Your task to perform on an android device: open app "Adobe Acrobat Reader: Edit PDF" (install if not already installed), go to login, and select forgot password Image 0: 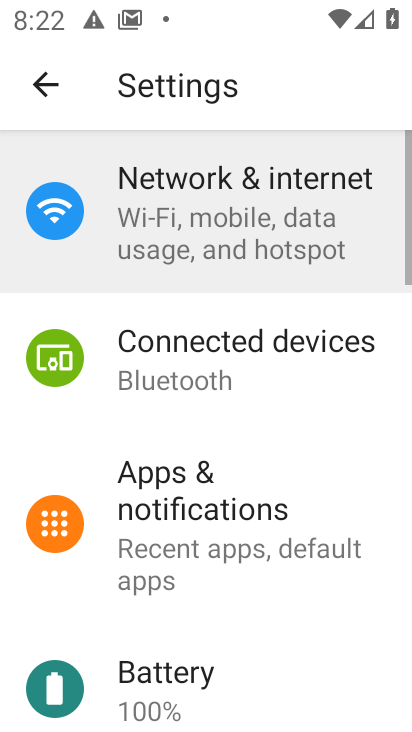
Step 0: press home button
Your task to perform on an android device: open app "Adobe Acrobat Reader: Edit PDF" (install if not already installed), go to login, and select forgot password Image 1: 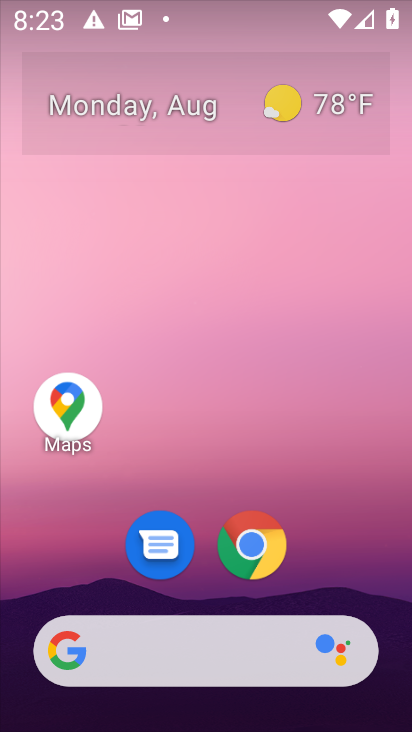
Step 1: drag from (329, 569) to (384, 167)
Your task to perform on an android device: open app "Adobe Acrobat Reader: Edit PDF" (install if not already installed), go to login, and select forgot password Image 2: 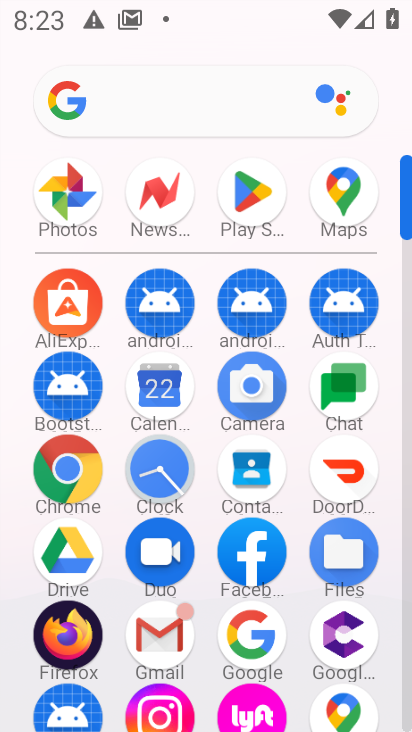
Step 2: click (253, 192)
Your task to perform on an android device: open app "Adobe Acrobat Reader: Edit PDF" (install if not already installed), go to login, and select forgot password Image 3: 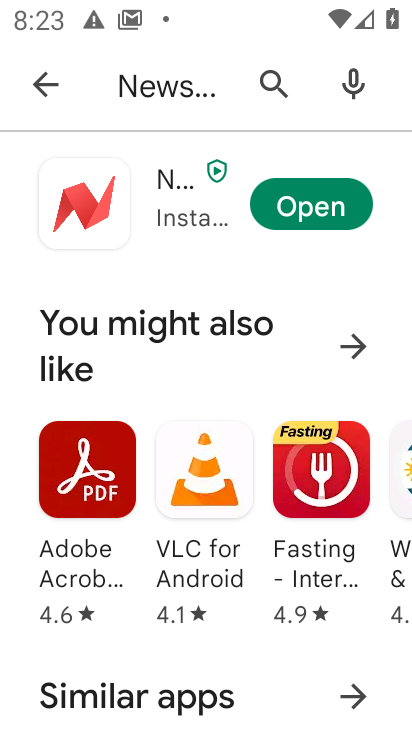
Step 3: press back button
Your task to perform on an android device: open app "Adobe Acrobat Reader: Edit PDF" (install if not already installed), go to login, and select forgot password Image 4: 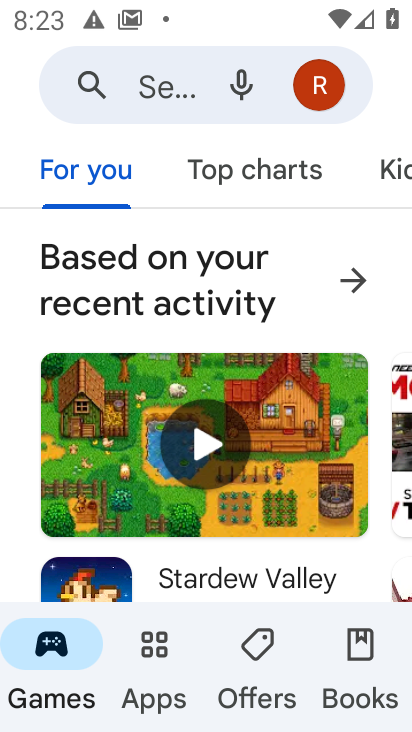
Step 4: click (123, 97)
Your task to perform on an android device: open app "Adobe Acrobat Reader: Edit PDF" (install if not already installed), go to login, and select forgot password Image 5: 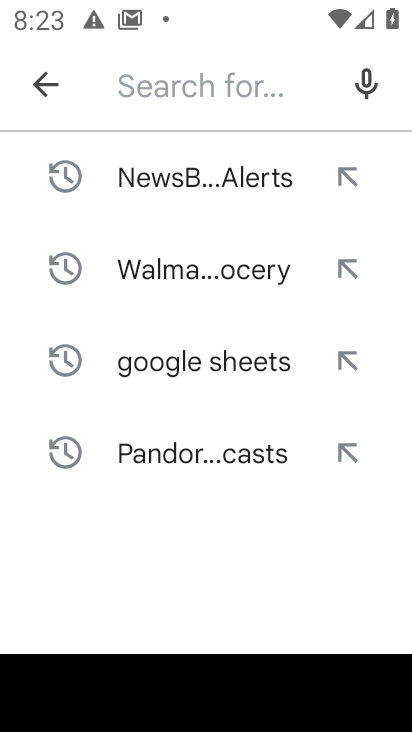
Step 5: type "Adobe Acrobat Reader: Edit PDF"
Your task to perform on an android device: open app "Adobe Acrobat Reader: Edit PDF" (install if not already installed), go to login, and select forgot password Image 6: 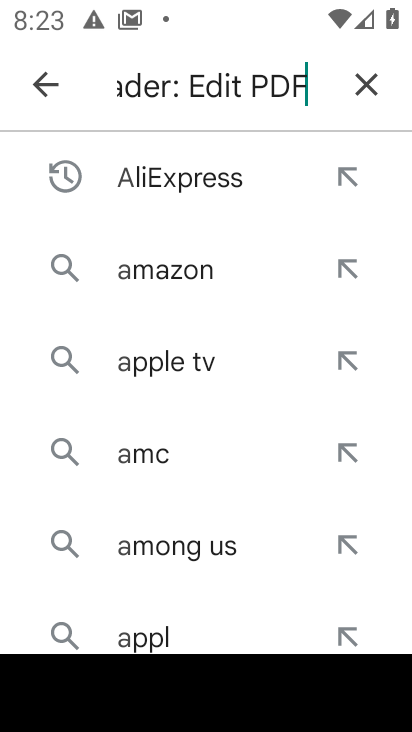
Step 6: press enter
Your task to perform on an android device: open app "Adobe Acrobat Reader: Edit PDF" (install if not already installed), go to login, and select forgot password Image 7: 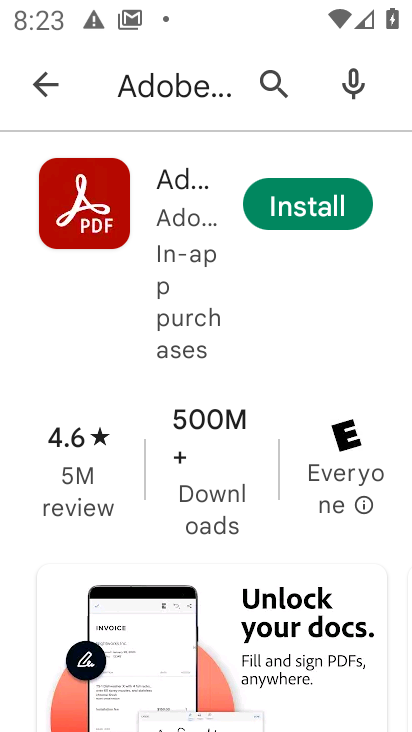
Step 7: click (335, 201)
Your task to perform on an android device: open app "Adobe Acrobat Reader: Edit PDF" (install if not already installed), go to login, and select forgot password Image 8: 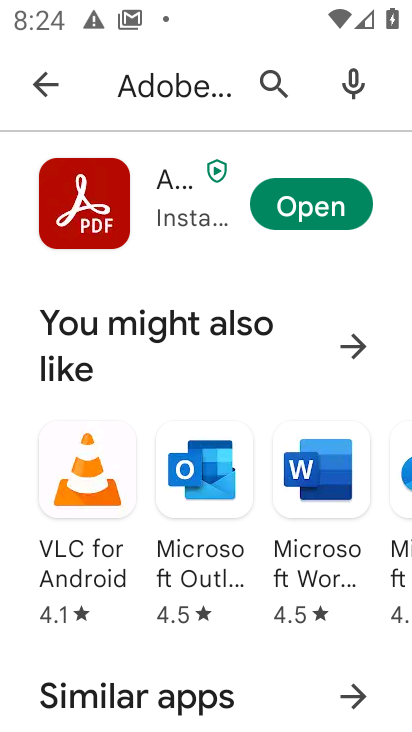
Step 8: click (325, 194)
Your task to perform on an android device: open app "Adobe Acrobat Reader: Edit PDF" (install if not already installed), go to login, and select forgot password Image 9: 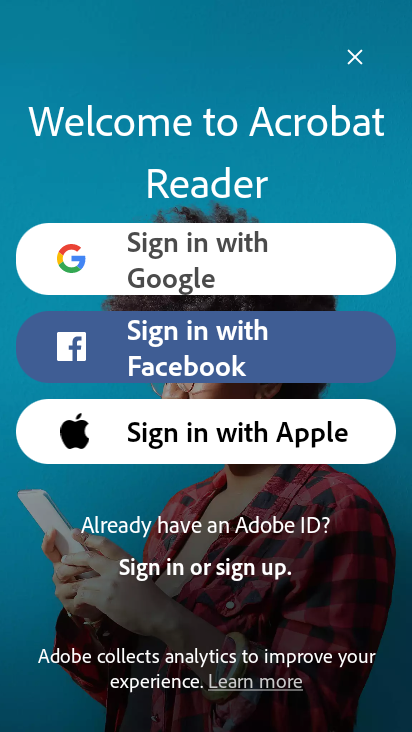
Step 9: click (146, 574)
Your task to perform on an android device: open app "Adobe Acrobat Reader: Edit PDF" (install if not already installed), go to login, and select forgot password Image 10: 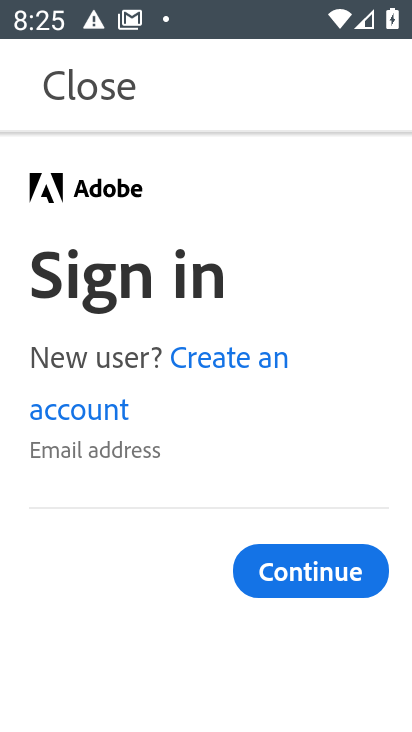
Step 10: task complete